Your task to perform on an android device: Search for vegetarian restaurants on Maps Image 0: 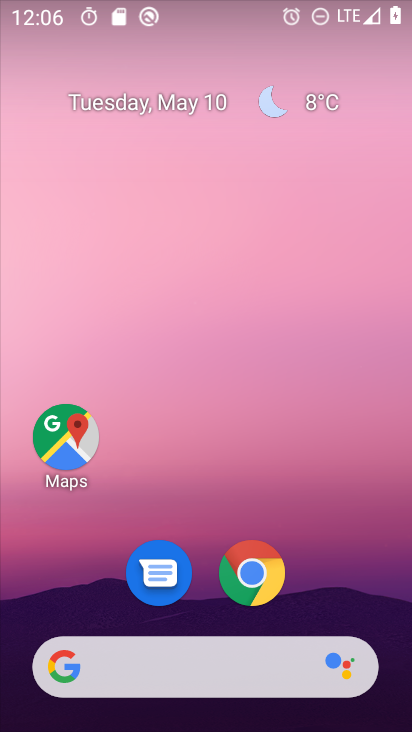
Step 0: drag from (336, 574) to (339, 70)
Your task to perform on an android device: Search for vegetarian restaurants on Maps Image 1: 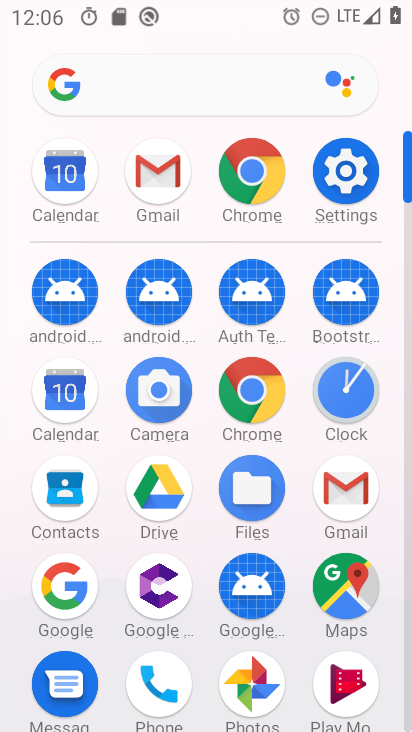
Step 1: click (350, 577)
Your task to perform on an android device: Search for vegetarian restaurants on Maps Image 2: 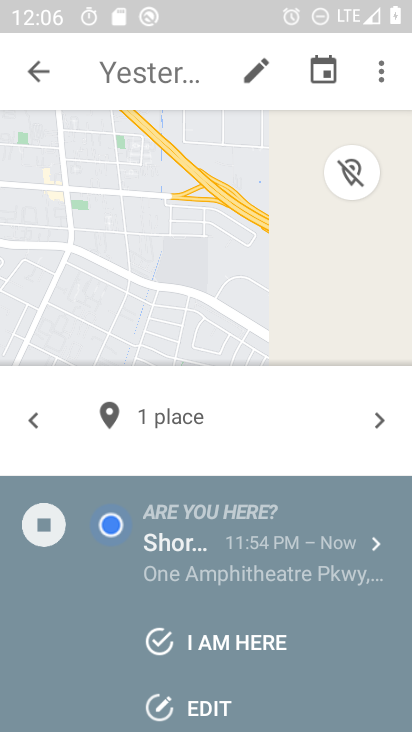
Step 2: click (39, 69)
Your task to perform on an android device: Search for vegetarian restaurants on Maps Image 3: 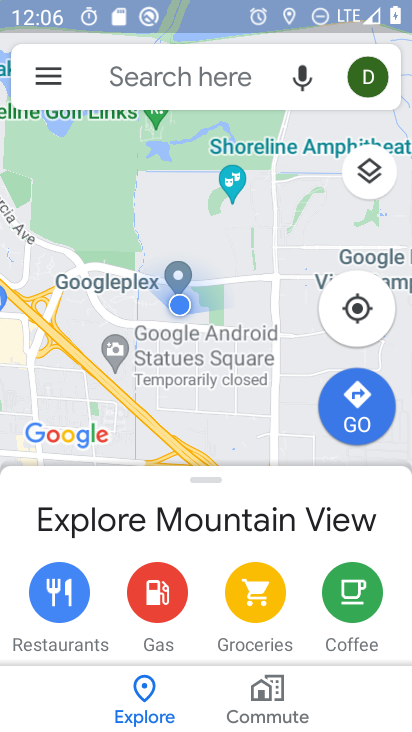
Step 3: click (165, 81)
Your task to perform on an android device: Search for vegetarian restaurants on Maps Image 4: 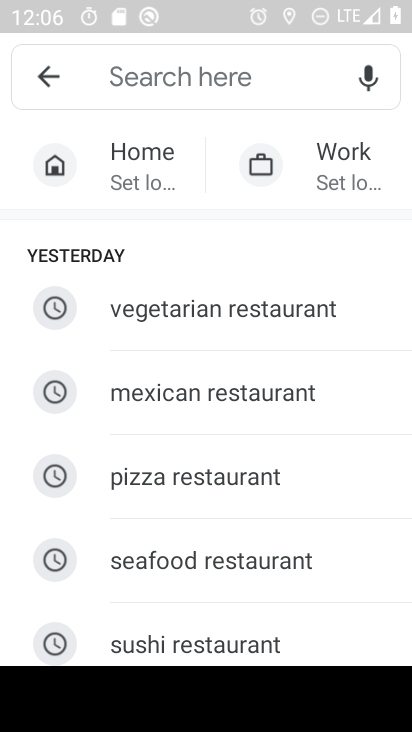
Step 4: type "vegetarian restaurants"
Your task to perform on an android device: Search for vegetarian restaurants on Maps Image 5: 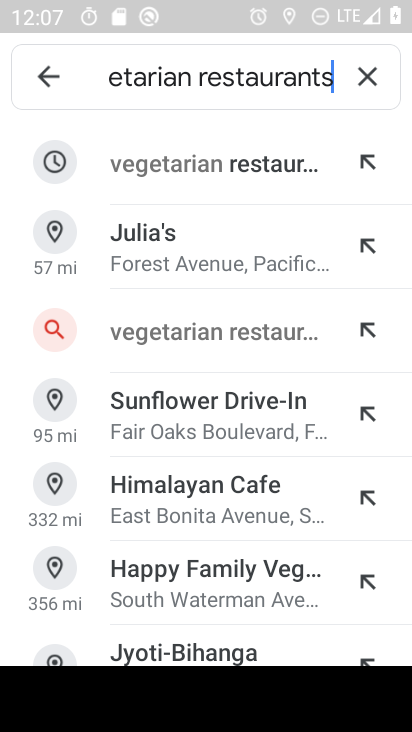
Step 5: press enter
Your task to perform on an android device: Search for vegetarian restaurants on Maps Image 6: 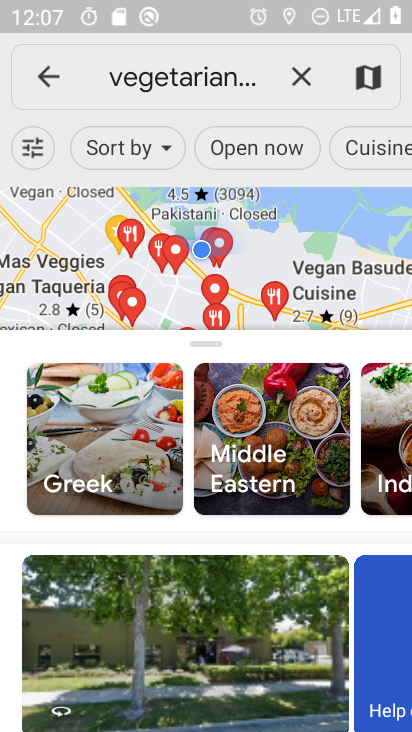
Step 6: task complete